Your task to perform on an android device: Turn off the flashlight Image 0: 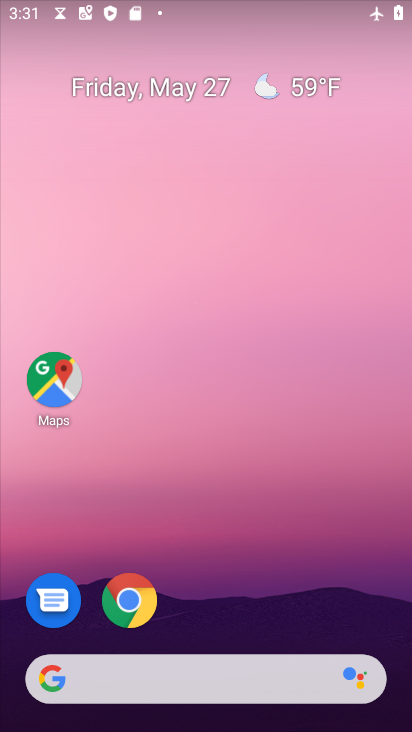
Step 0: drag from (248, 565) to (243, 132)
Your task to perform on an android device: Turn off the flashlight Image 1: 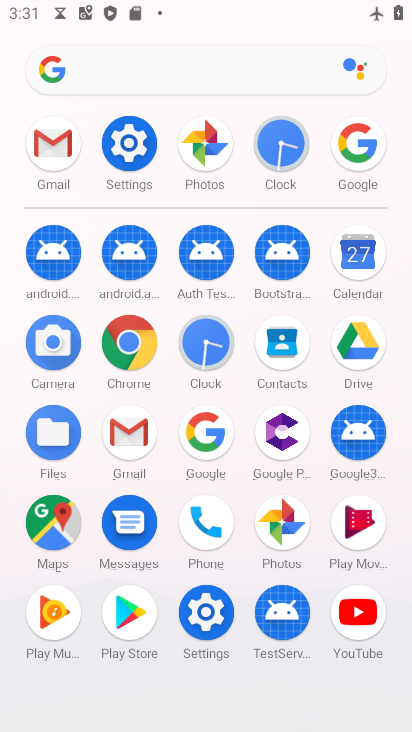
Step 1: click (203, 616)
Your task to perform on an android device: Turn off the flashlight Image 2: 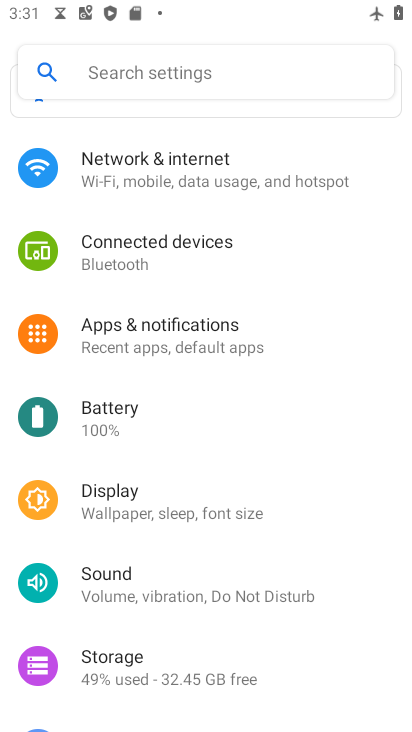
Step 2: click (152, 506)
Your task to perform on an android device: Turn off the flashlight Image 3: 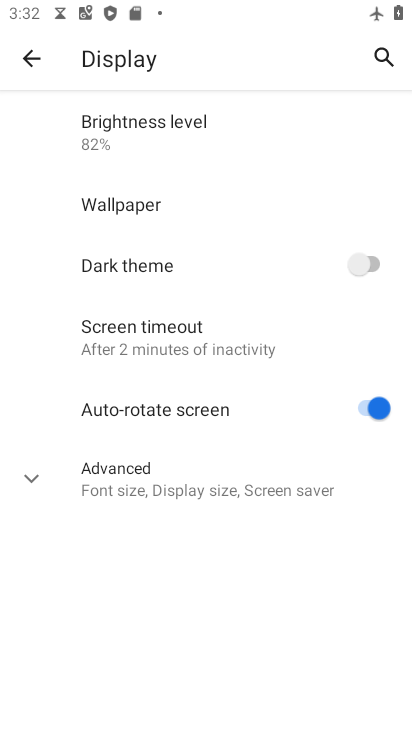
Step 3: task complete